Your task to perform on an android device: turn off translation in the chrome app Image 0: 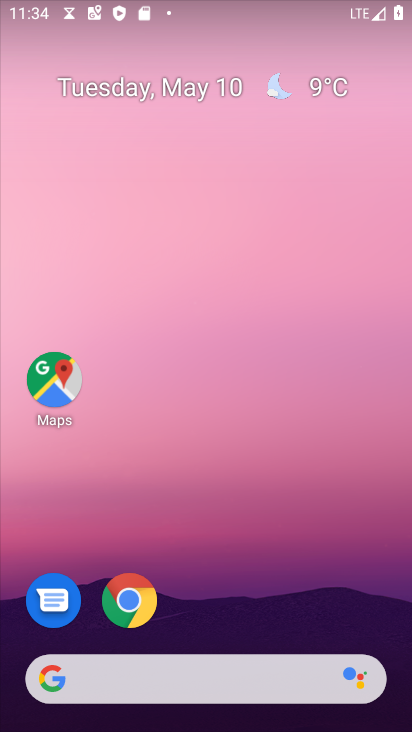
Step 0: click (144, 601)
Your task to perform on an android device: turn off translation in the chrome app Image 1: 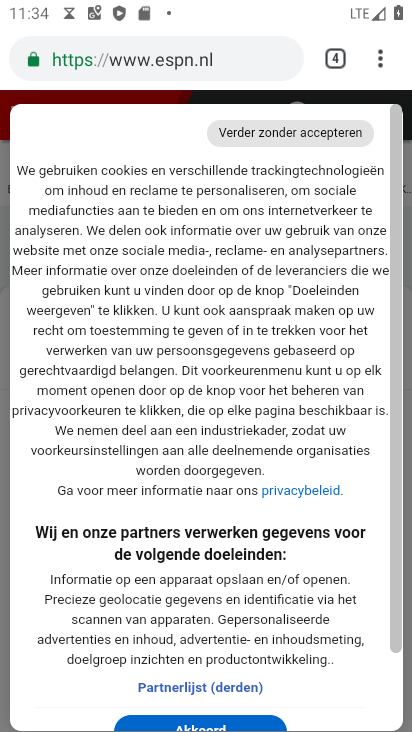
Step 1: click (376, 56)
Your task to perform on an android device: turn off translation in the chrome app Image 2: 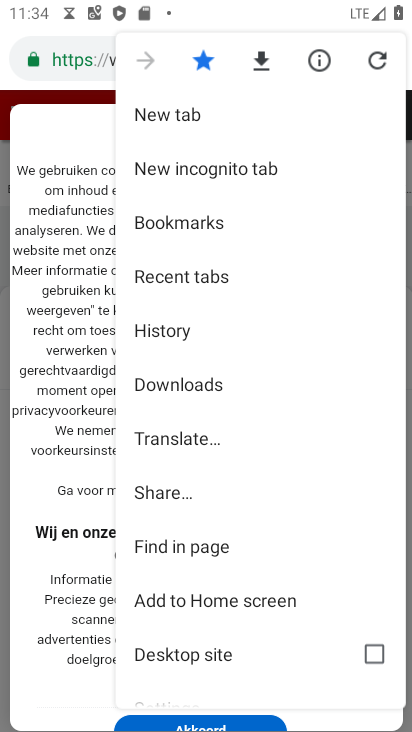
Step 2: drag from (302, 590) to (266, 193)
Your task to perform on an android device: turn off translation in the chrome app Image 3: 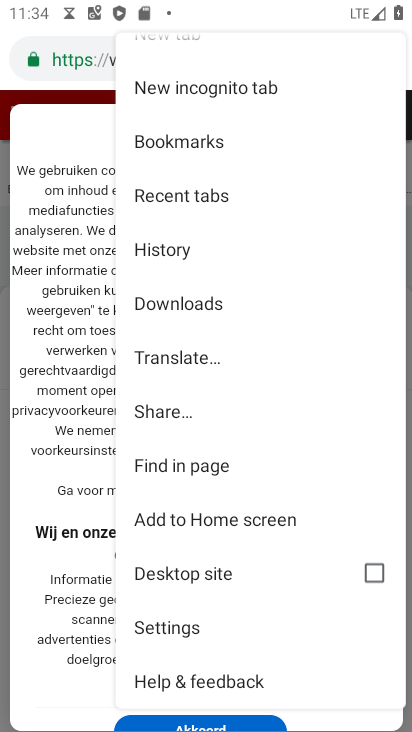
Step 3: click (213, 623)
Your task to perform on an android device: turn off translation in the chrome app Image 4: 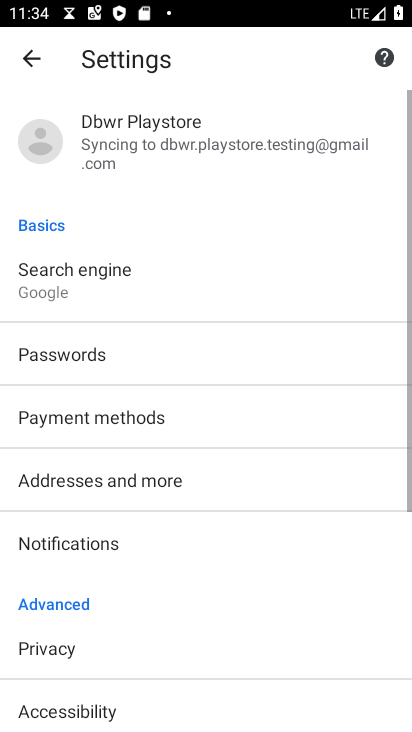
Step 4: drag from (204, 625) to (175, 155)
Your task to perform on an android device: turn off translation in the chrome app Image 5: 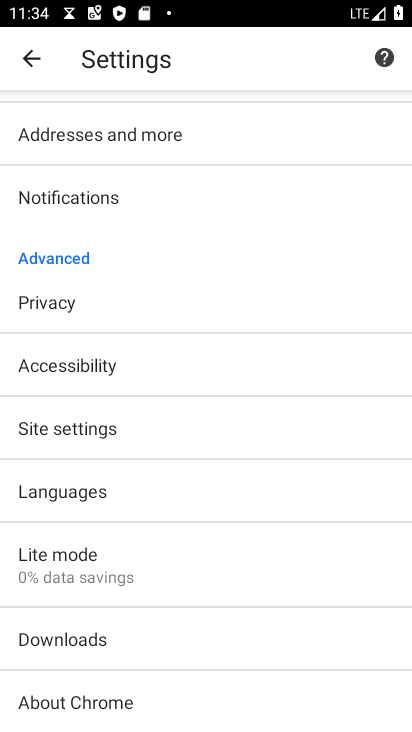
Step 5: click (113, 484)
Your task to perform on an android device: turn off translation in the chrome app Image 6: 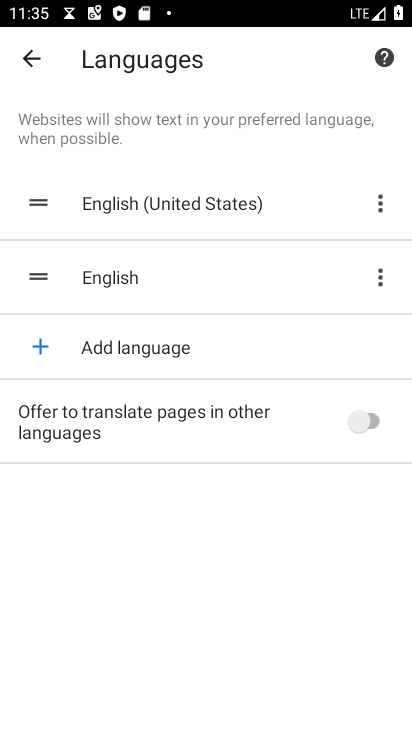
Step 6: task complete